Your task to perform on an android device: star an email in the gmail app Image 0: 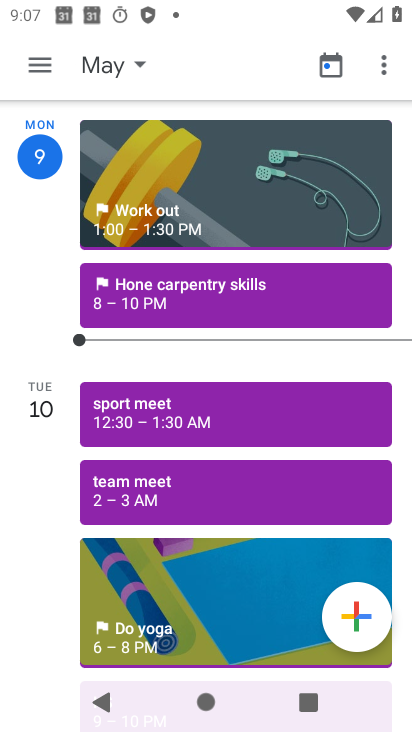
Step 0: press home button
Your task to perform on an android device: star an email in the gmail app Image 1: 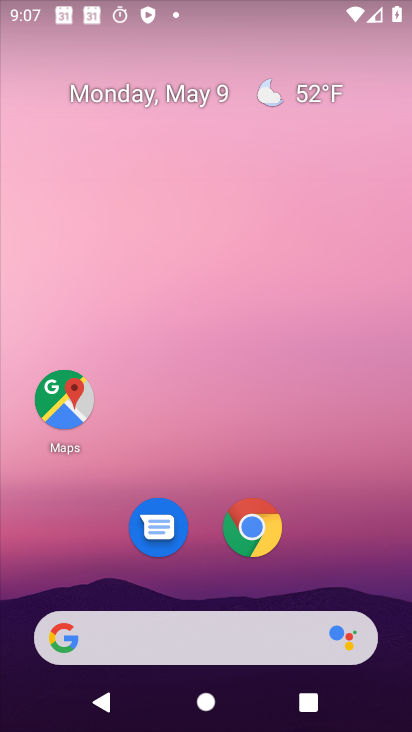
Step 1: drag from (369, 570) to (372, 138)
Your task to perform on an android device: star an email in the gmail app Image 2: 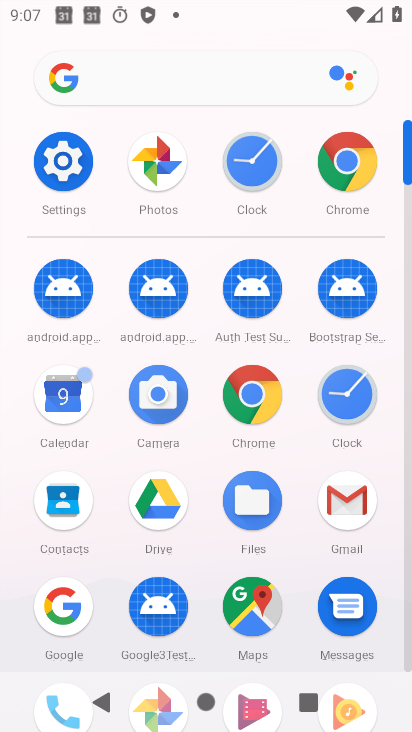
Step 2: click (318, 494)
Your task to perform on an android device: star an email in the gmail app Image 3: 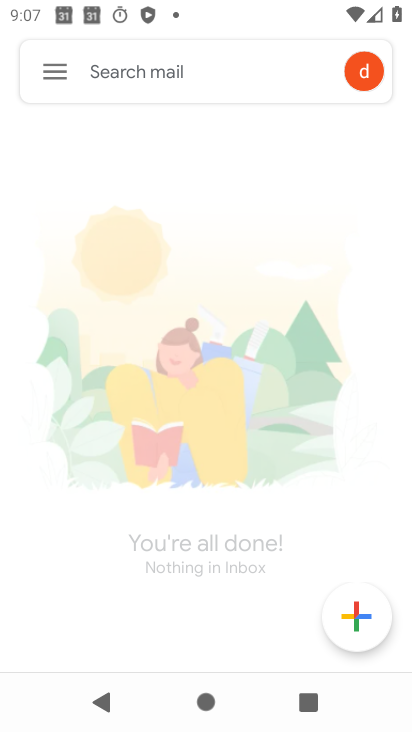
Step 3: click (64, 66)
Your task to perform on an android device: star an email in the gmail app Image 4: 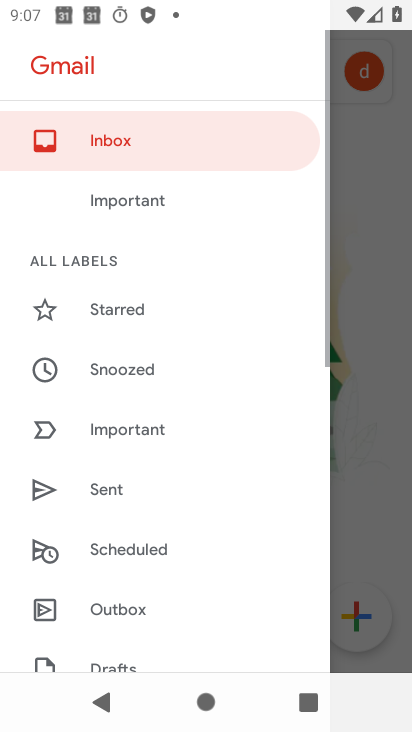
Step 4: drag from (159, 640) to (213, 237)
Your task to perform on an android device: star an email in the gmail app Image 5: 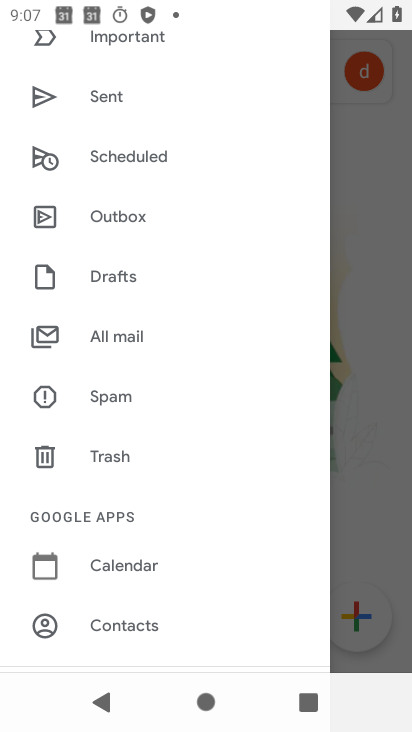
Step 5: click (152, 344)
Your task to perform on an android device: star an email in the gmail app Image 6: 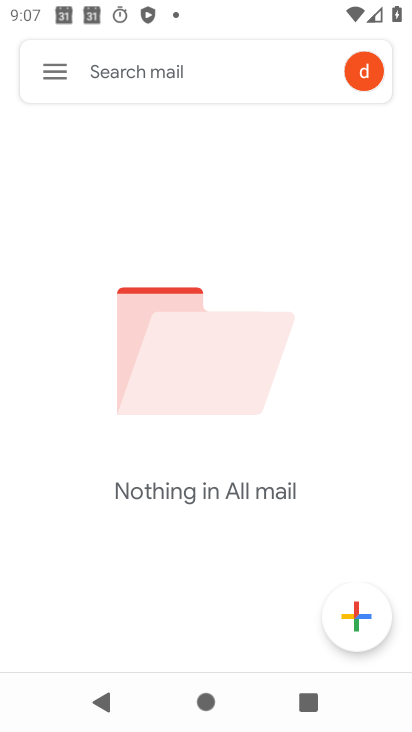
Step 6: task complete